Your task to perform on an android device: Open settings on Google Maps Image 0: 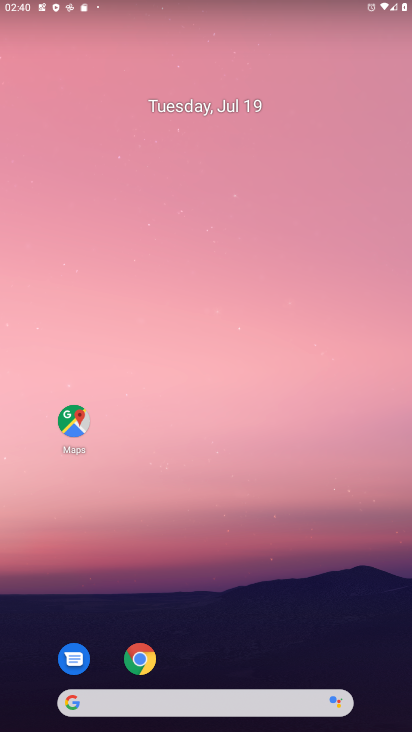
Step 0: press home button
Your task to perform on an android device: Open settings on Google Maps Image 1: 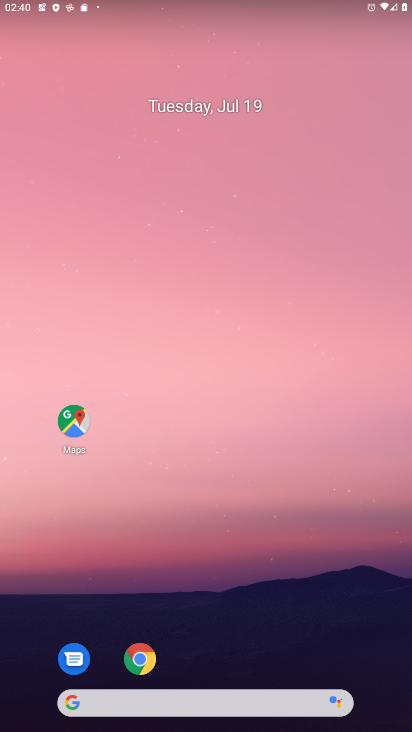
Step 1: click (70, 417)
Your task to perform on an android device: Open settings on Google Maps Image 2: 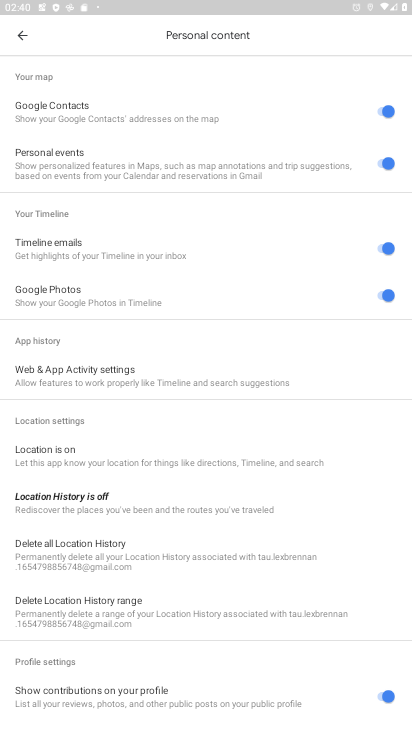
Step 2: click (25, 38)
Your task to perform on an android device: Open settings on Google Maps Image 3: 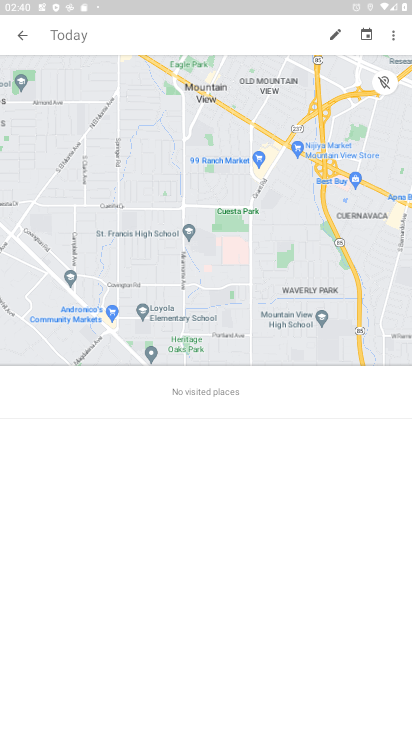
Step 3: click (25, 38)
Your task to perform on an android device: Open settings on Google Maps Image 4: 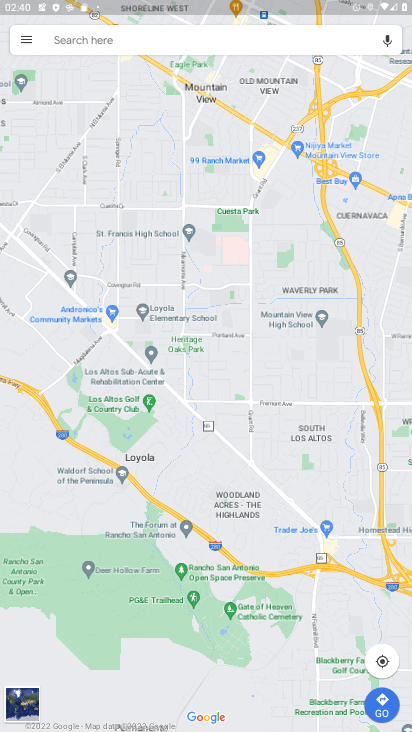
Step 4: click (25, 38)
Your task to perform on an android device: Open settings on Google Maps Image 5: 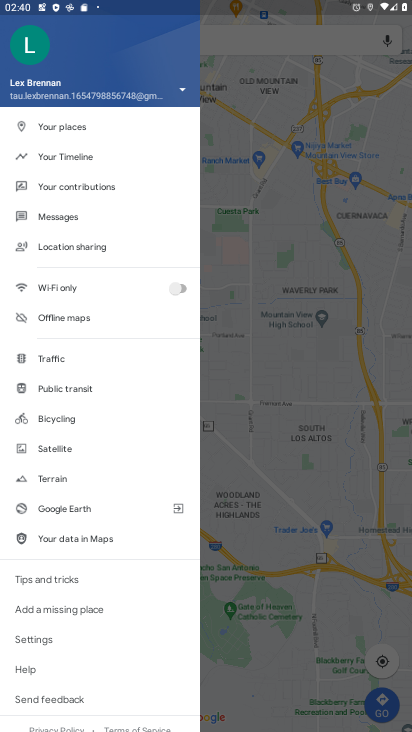
Step 5: click (51, 636)
Your task to perform on an android device: Open settings on Google Maps Image 6: 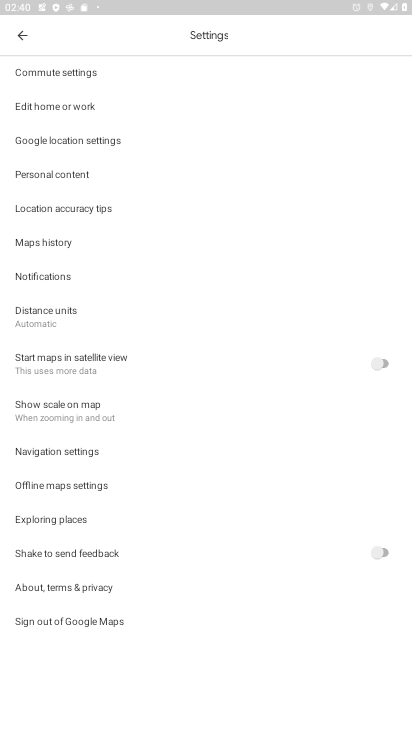
Step 6: task complete